Your task to perform on an android device: What's on my calendar tomorrow? Image 0: 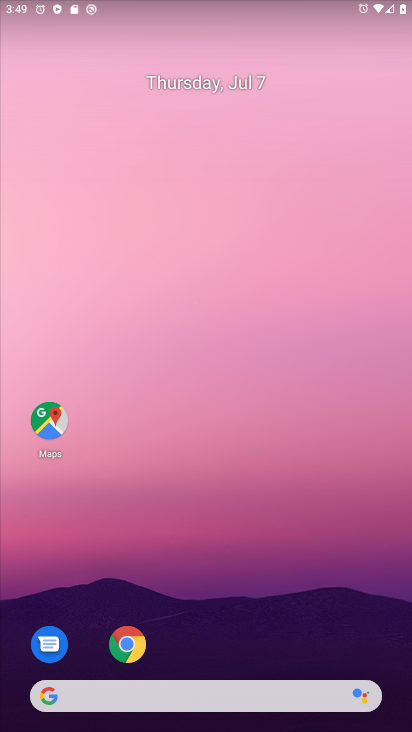
Step 0: drag from (332, 653) to (300, 188)
Your task to perform on an android device: What's on my calendar tomorrow? Image 1: 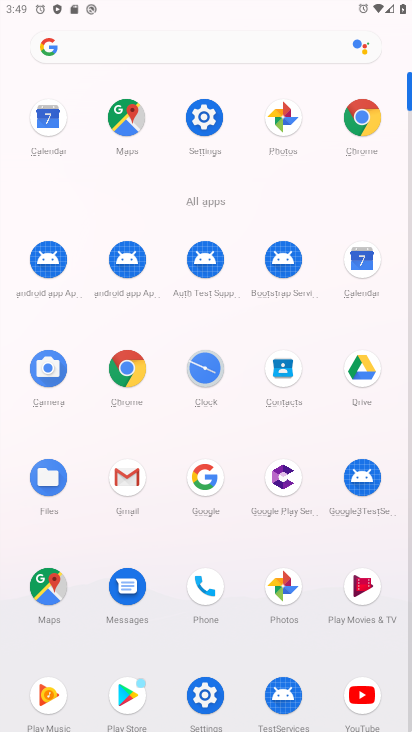
Step 1: click (358, 258)
Your task to perform on an android device: What's on my calendar tomorrow? Image 2: 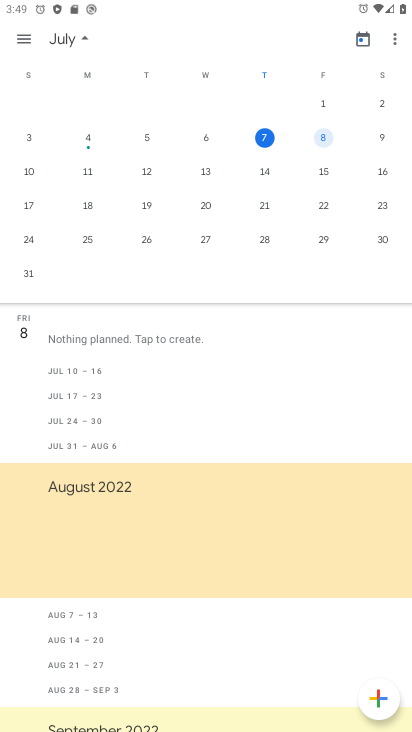
Step 2: task complete